Your task to perform on an android device: Go to Maps Image 0: 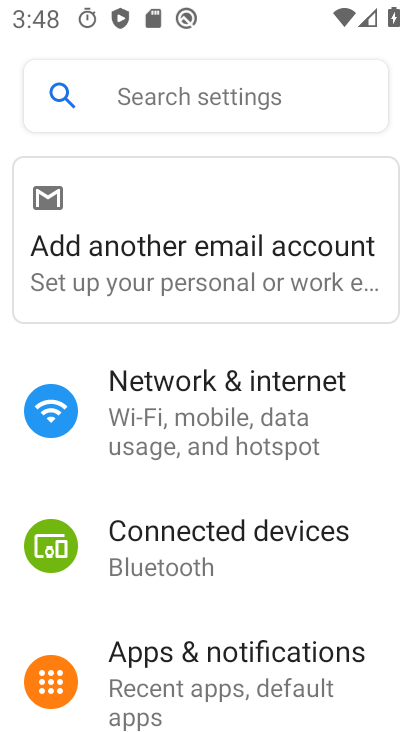
Step 0: drag from (222, 629) to (247, 341)
Your task to perform on an android device: Go to Maps Image 1: 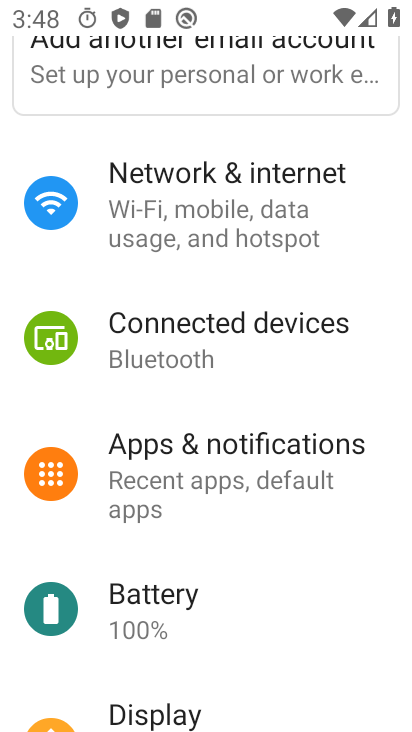
Step 1: press home button
Your task to perform on an android device: Go to Maps Image 2: 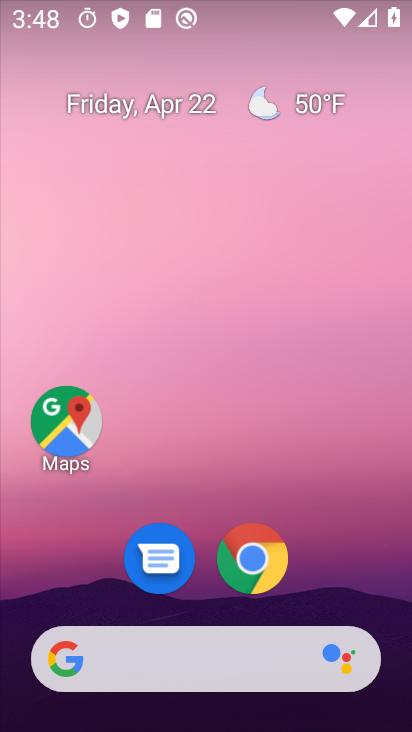
Step 2: click (59, 410)
Your task to perform on an android device: Go to Maps Image 3: 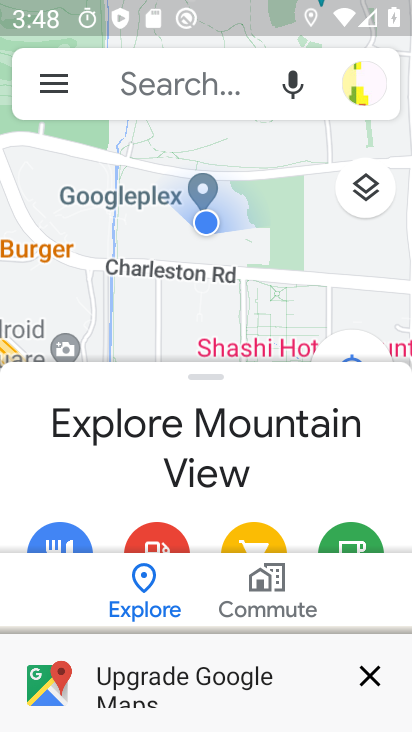
Step 3: task complete